Your task to perform on an android device: What's the weather going to be tomorrow? Image 0: 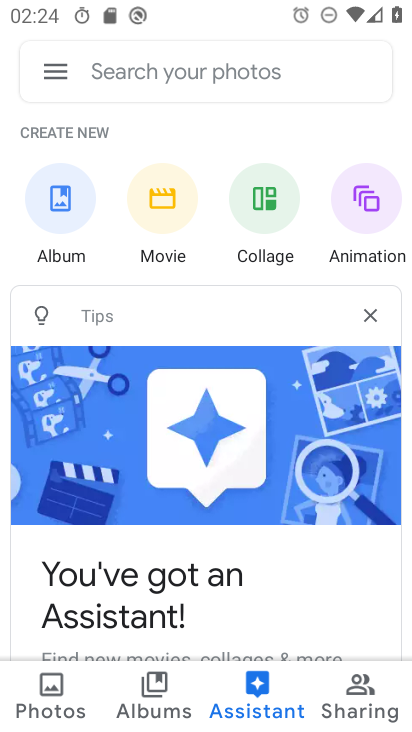
Step 0: press home button
Your task to perform on an android device: What's the weather going to be tomorrow? Image 1: 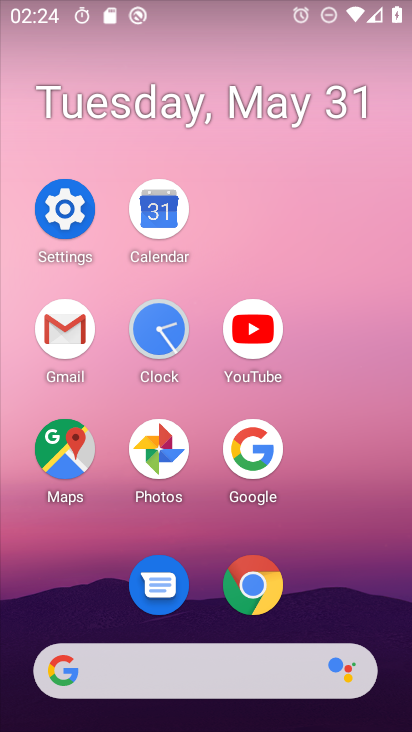
Step 1: click (246, 444)
Your task to perform on an android device: What's the weather going to be tomorrow? Image 2: 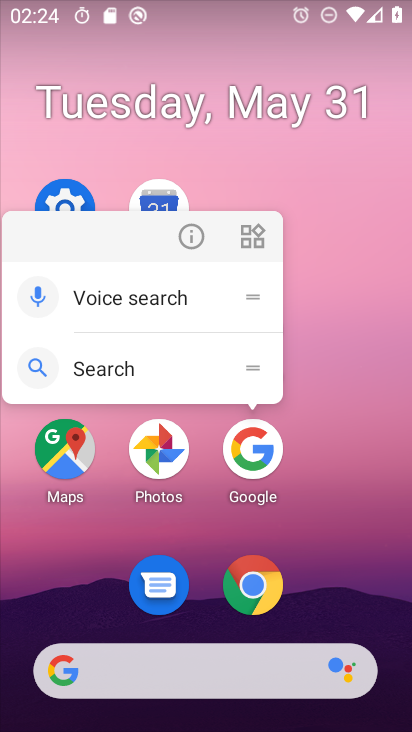
Step 2: click (255, 430)
Your task to perform on an android device: What's the weather going to be tomorrow? Image 3: 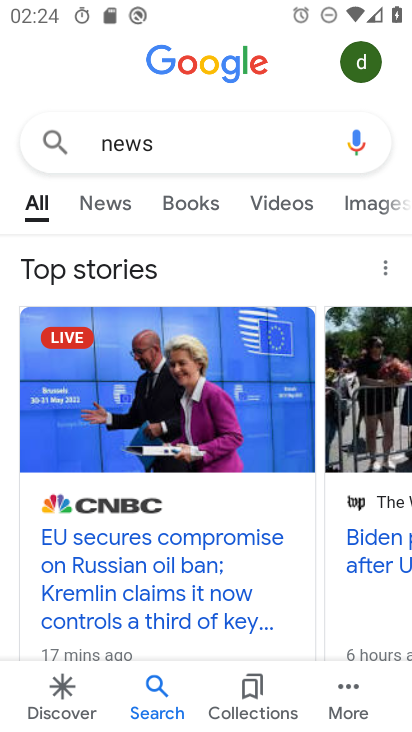
Step 3: click (191, 137)
Your task to perform on an android device: What's the weather going to be tomorrow? Image 4: 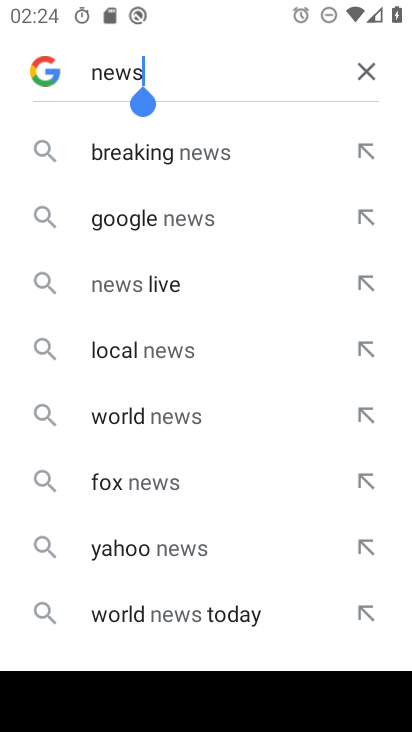
Step 4: click (373, 70)
Your task to perform on an android device: What's the weather going to be tomorrow? Image 5: 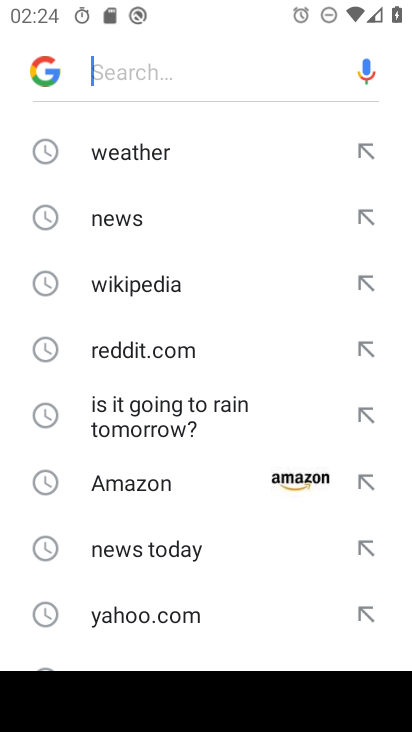
Step 5: click (172, 159)
Your task to perform on an android device: What's the weather going to be tomorrow? Image 6: 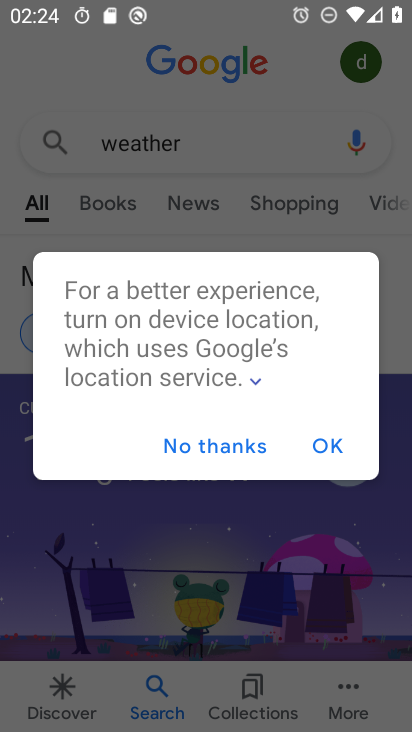
Step 6: click (209, 323)
Your task to perform on an android device: What's the weather going to be tomorrow? Image 7: 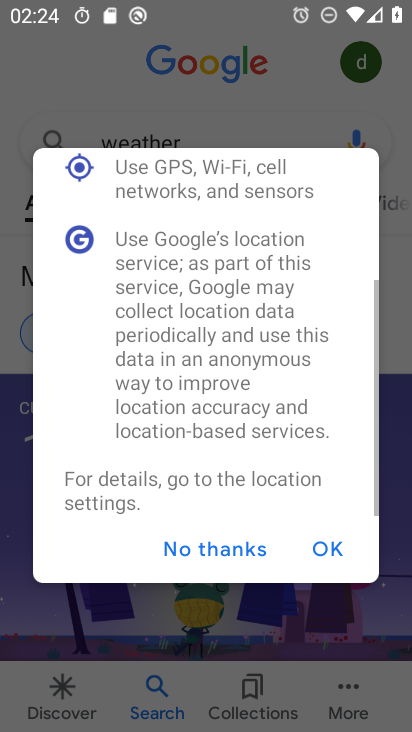
Step 7: click (229, 421)
Your task to perform on an android device: What's the weather going to be tomorrow? Image 8: 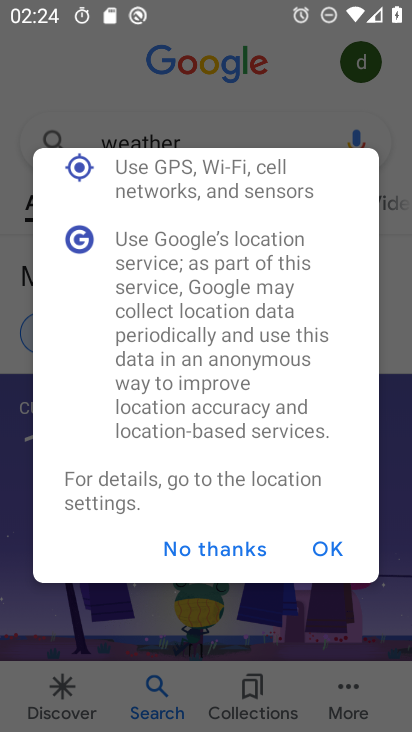
Step 8: click (341, 543)
Your task to perform on an android device: What's the weather going to be tomorrow? Image 9: 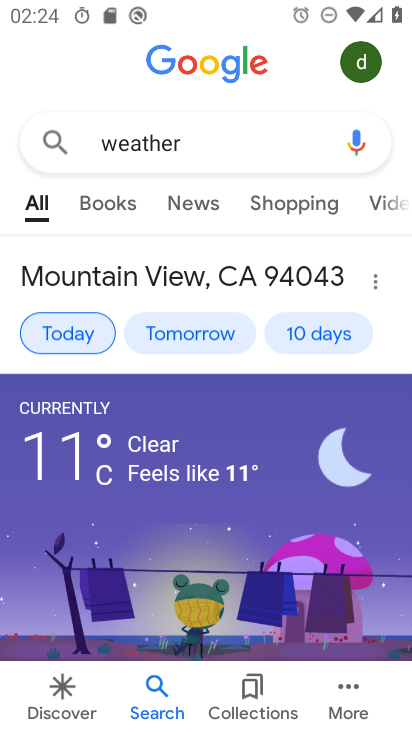
Step 9: click (186, 335)
Your task to perform on an android device: What's the weather going to be tomorrow? Image 10: 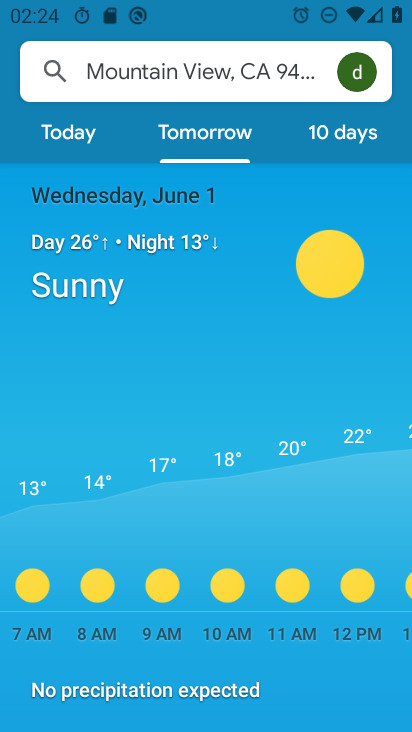
Step 10: task complete